Your task to perform on an android device: Open ESPN.com Image 0: 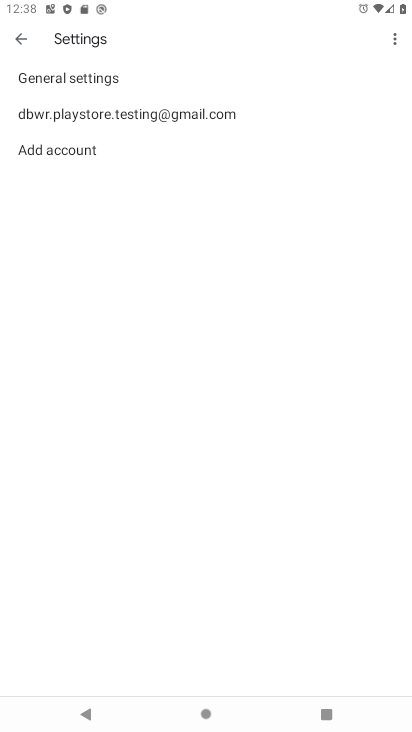
Step 0: press home button
Your task to perform on an android device: Open ESPN.com Image 1: 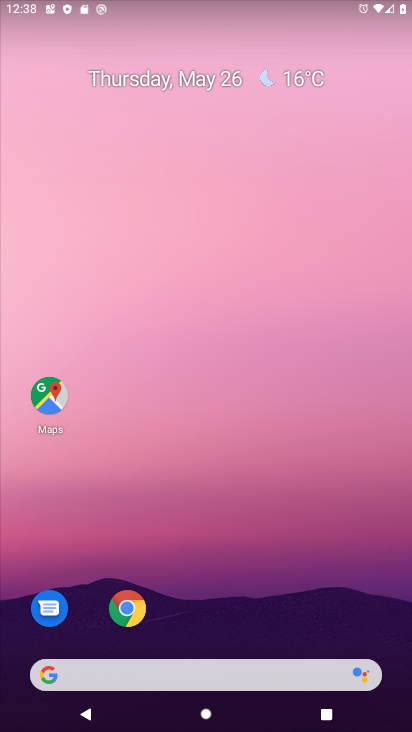
Step 1: click (132, 606)
Your task to perform on an android device: Open ESPN.com Image 2: 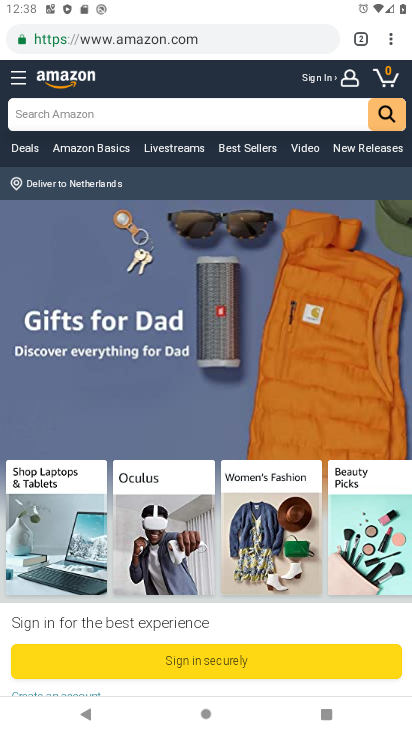
Step 2: click (390, 46)
Your task to perform on an android device: Open ESPN.com Image 3: 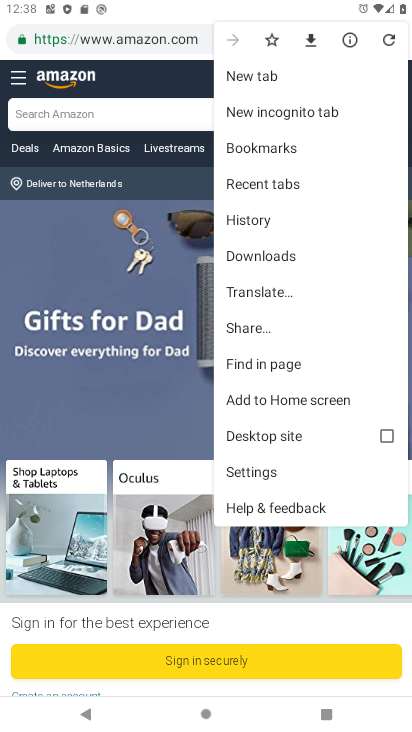
Step 3: click (247, 78)
Your task to perform on an android device: Open ESPN.com Image 4: 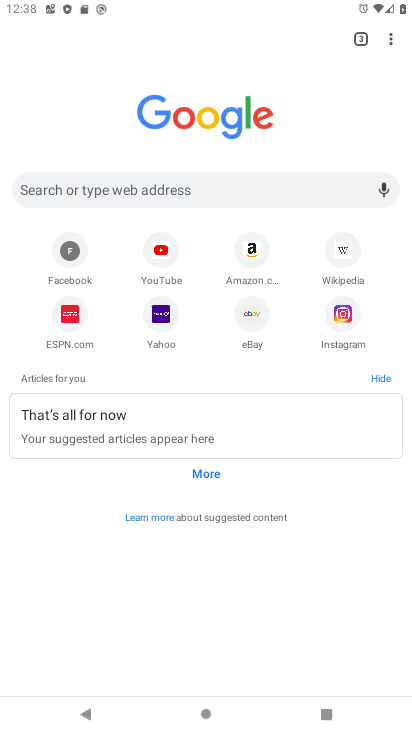
Step 4: click (66, 315)
Your task to perform on an android device: Open ESPN.com Image 5: 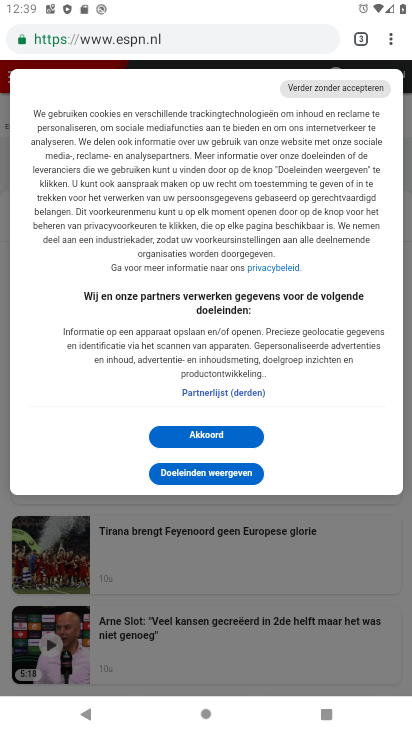
Step 5: click (212, 434)
Your task to perform on an android device: Open ESPN.com Image 6: 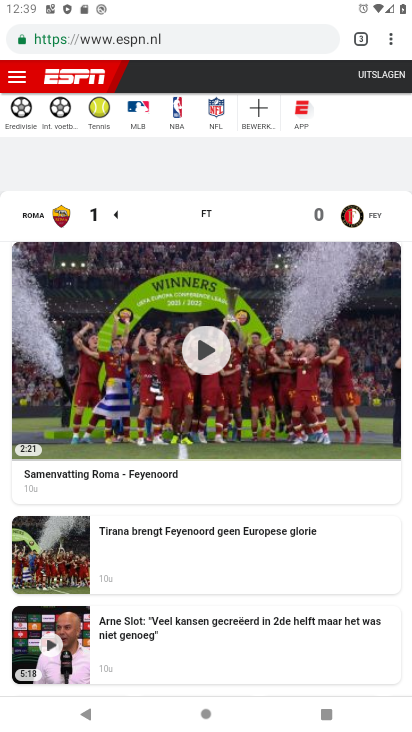
Step 6: task complete